Your task to perform on an android device: Open calendar and show me the second week of next month Image 0: 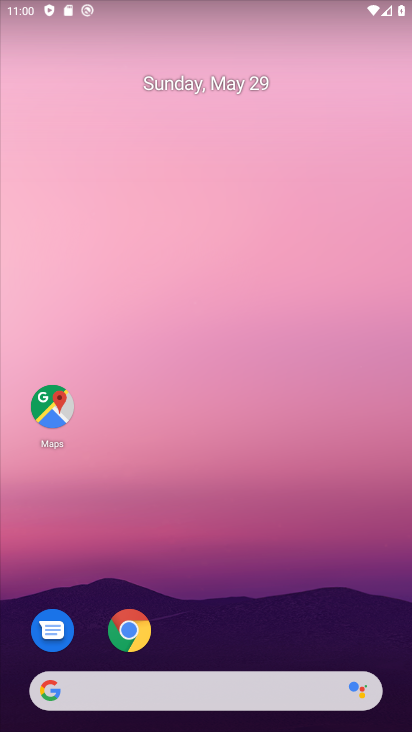
Step 0: drag from (86, 158) to (99, 1)
Your task to perform on an android device: Open calendar and show me the second week of next month Image 1: 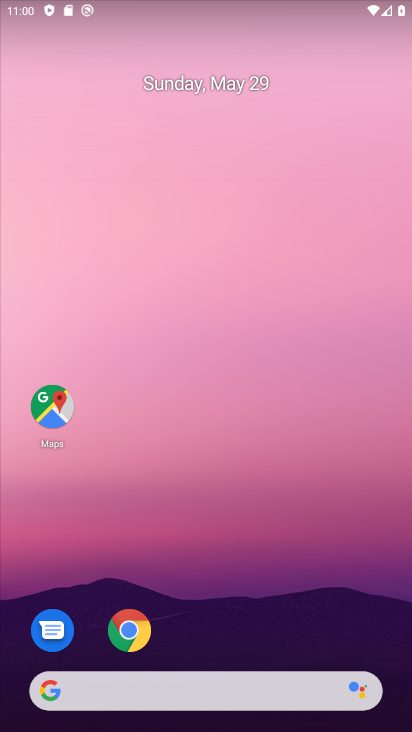
Step 1: drag from (119, 728) to (132, 21)
Your task to perform on an android device: Open calendar and show me the second week of next month Image 2: 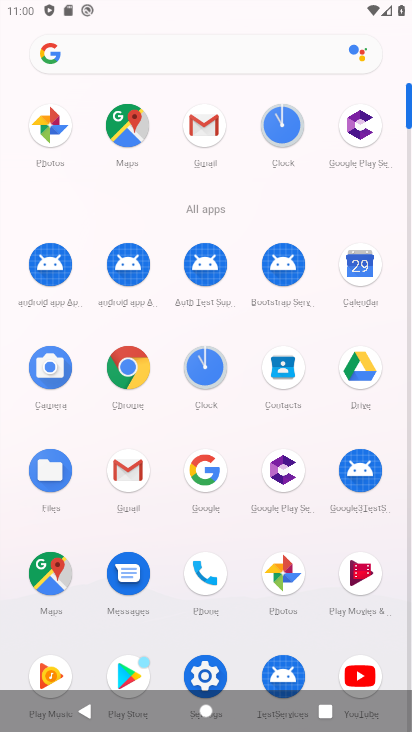
Step 2: click (366, 271)
Your task to perform on an android device: Open calendar and show me the second week of next month Image 3: 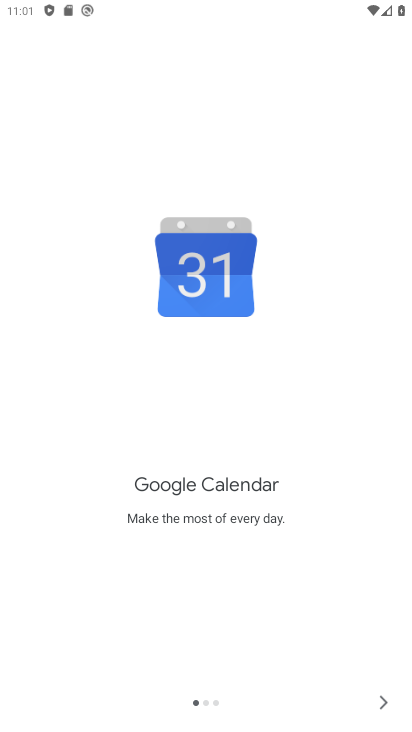
Step 3: click (383, 711)
Your task to perform on an android device: Open calendar and show me the second week of next month Image 4: 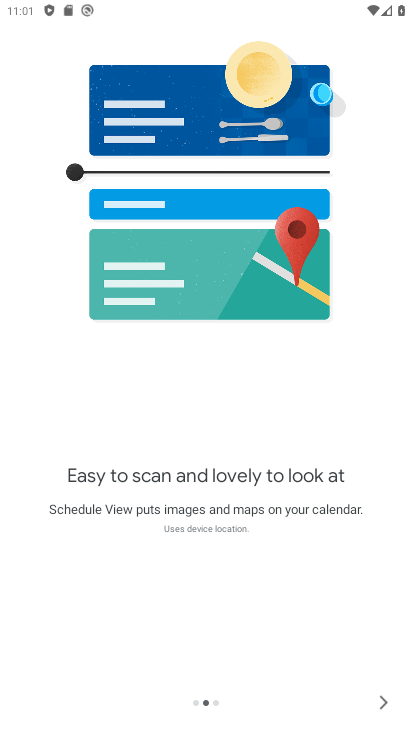
Step 4: click (386, 699)
Your task to perform on an android device: Open calendar and show me the second week of next month Image 5: 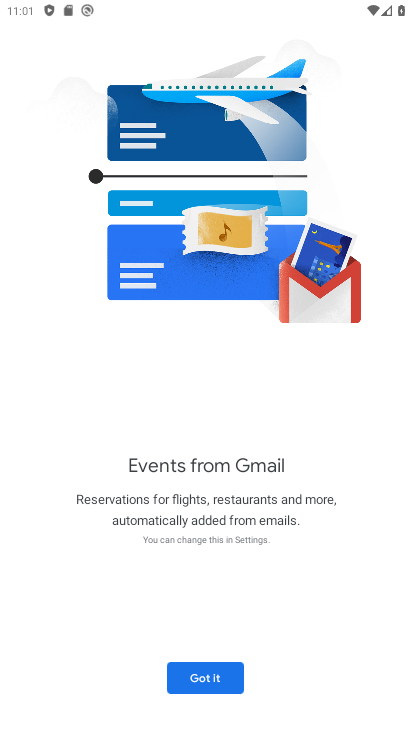
Step 5: click (212, 687)
Your task to perform on an android device: Open calendar and show me the second week of next month Image 6: 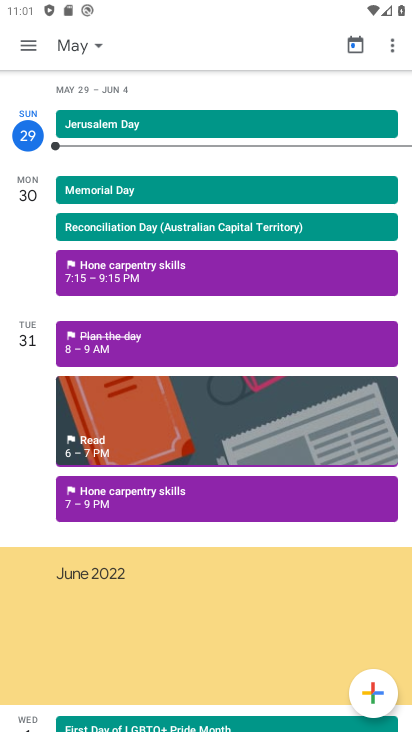
Step 6: click (94, 44)
Your task to perform on an android device: Open calendar and show me the second week of next month Image 7: 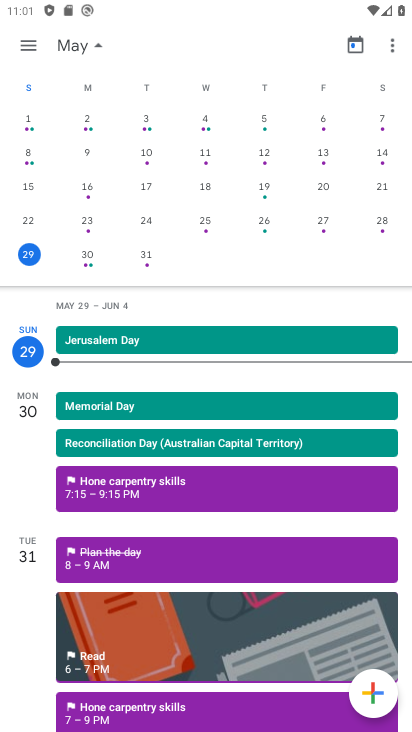
Step 7: drag from (386, 252) to (10, 259)
Your task to perform on an android device: Open calendar and show me the second week of next month Image 8: 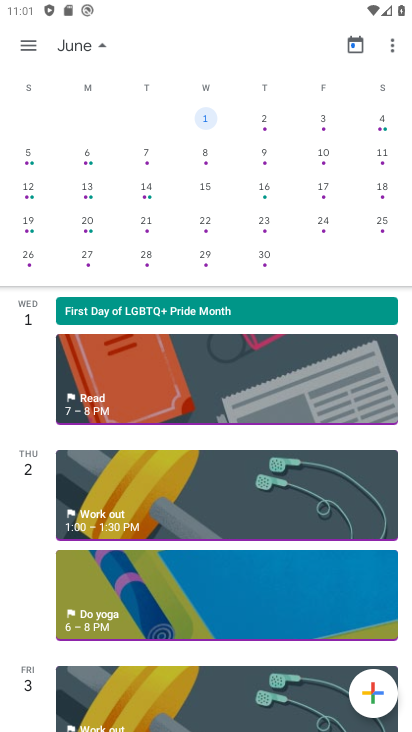
Step 8: click (99, 45)
Your task to perform on an android device: Open calendar and show me the second week of next month Image 9: 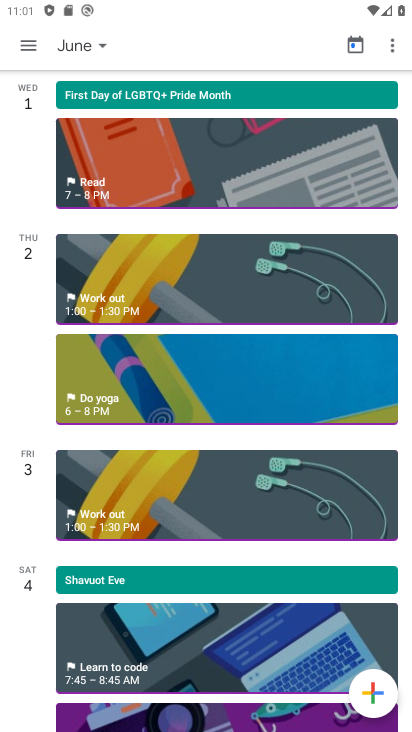
Step 9: click (21, 41)
Your task to perform on an android device: Open calendar and show me the second week of next month Image 10: 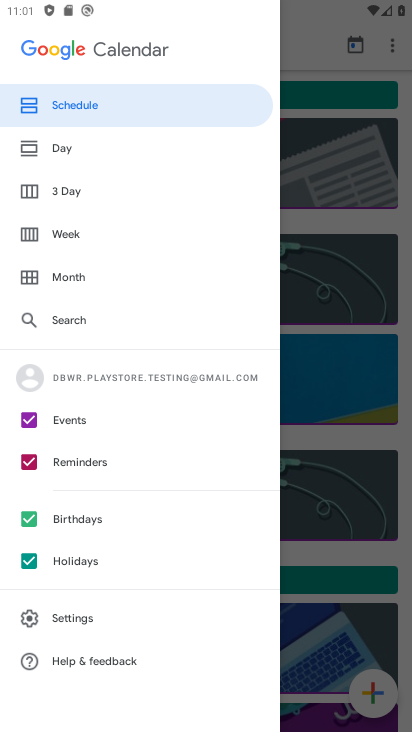
Step 10: click (80, 237)
Your task to perform on an android device: Open calendar and show me the second week of next month Image 11: 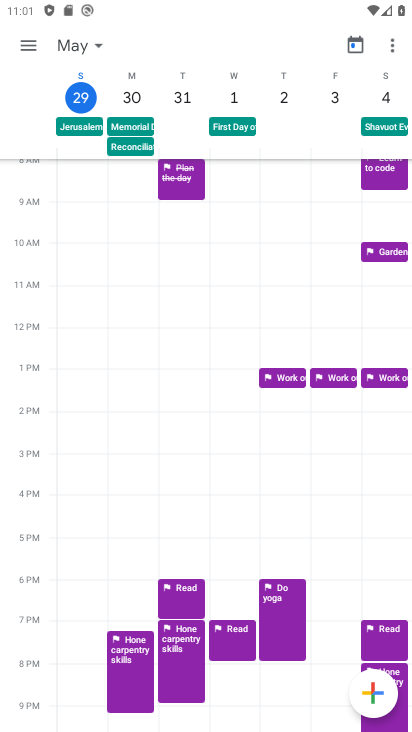
Step 11: task complete